Your task to perform on an android device: Show me popular videos on Youtube Image 0: 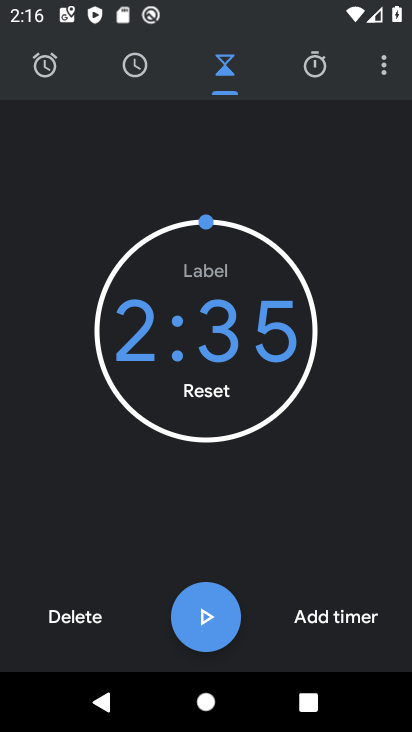
Step 0: press home button
Your task to perform on an android device: Show me popular videos on Youtube Image 1: 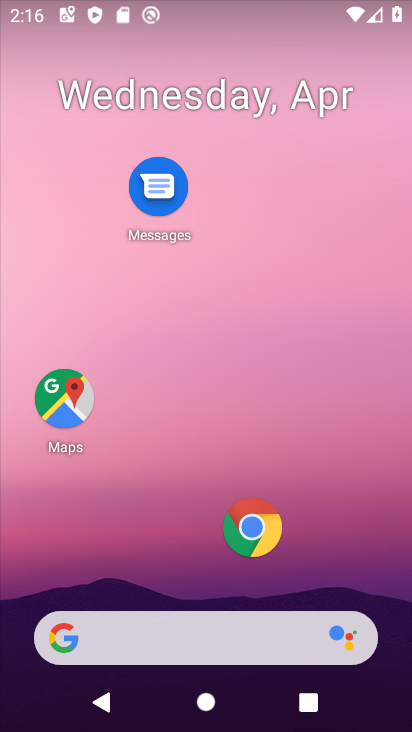
Step 1: drag from (174, 572) to (116, 197)
Your task to perform on an android device: Show me popular videos on Youtube Image 2: 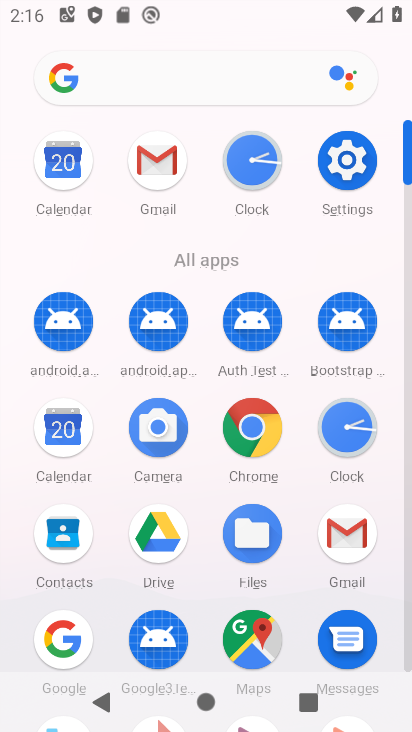
Step 2: drag from (184, 593) to (80, 284)
Your task to perform on an android device: Show me popular videos on Youtube Image 3: 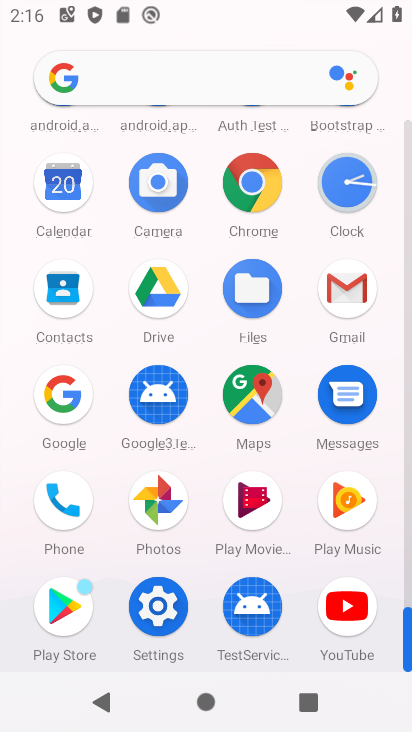
Step 3: click (347, 615)
Your task to perform on an android device: Show me popular videos on Youtube Image 4: 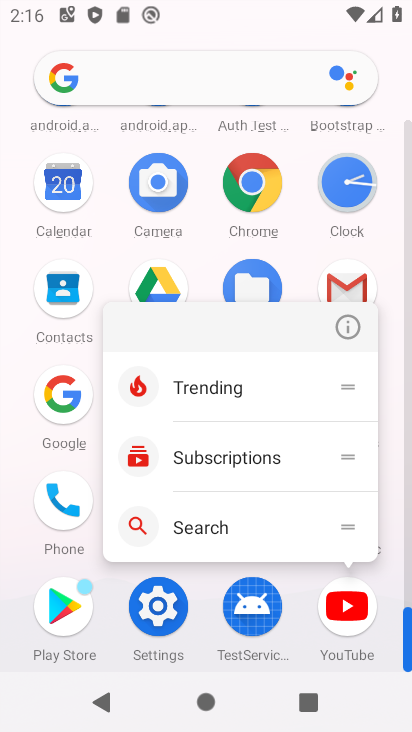
Step 4: click (335, 605)
Your task to perform on an android device: Show me popular videos on Youtube Image 5: 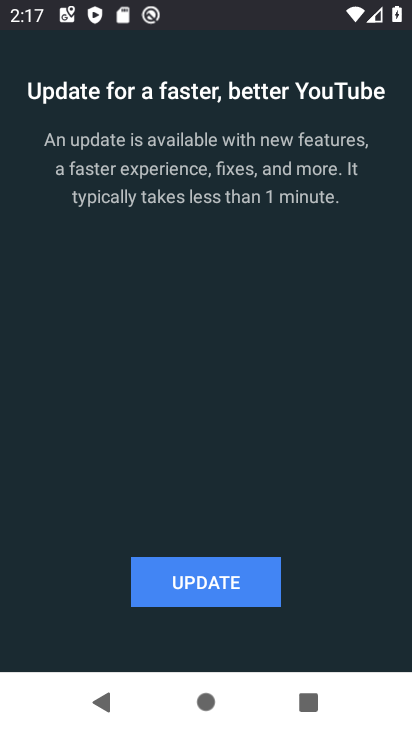
Step 5: click (177, 589)
Your task to perform on an android device: Show me popular videos on Youtube Image 6: 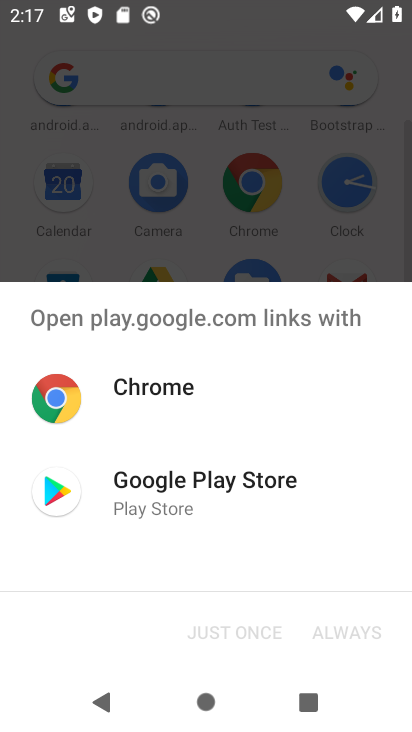
Step 6: click (184, 466)
Your task to perform on an android device: Show me popular videos on Youtube Image 7: 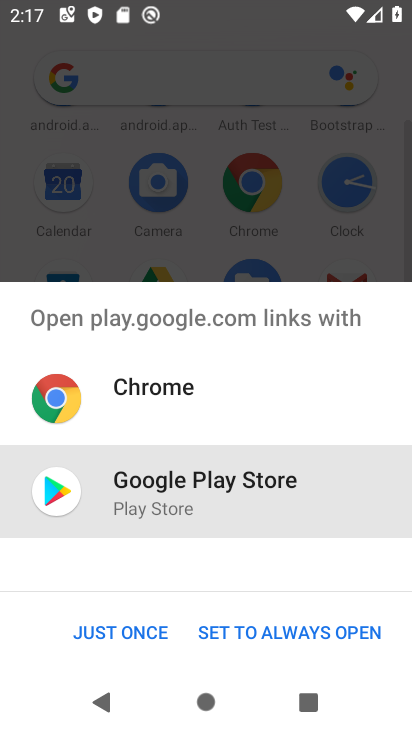
Step 7: click (157, 630)
Your task to perform on an android device: Show me popular videos on Youtube Image 8: 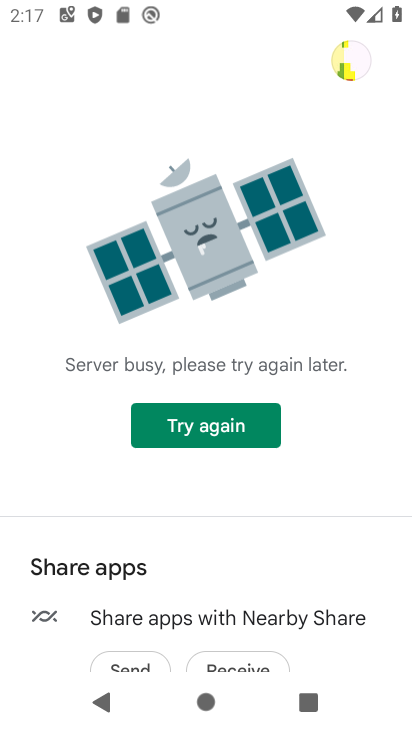
Step 8: task complete